Your task to perform on an android device: open app "Instagram" (install if not already installed), go to login, and select forgot password Image 0: 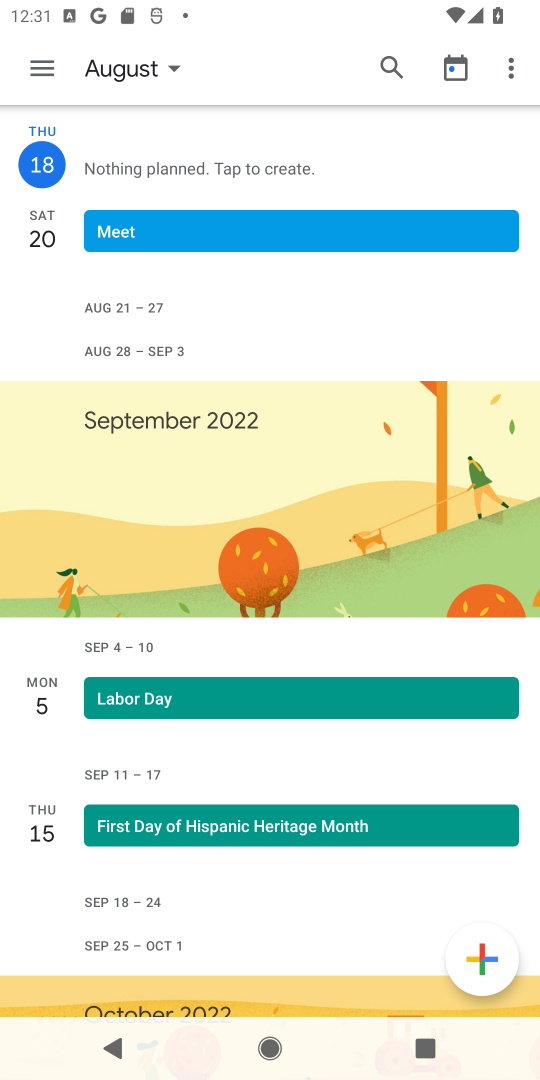
Step 0: press home button
Your task to perform on an android device: open app "Instagram" (install if not already installed), go to login, and select forgot password Image 1: 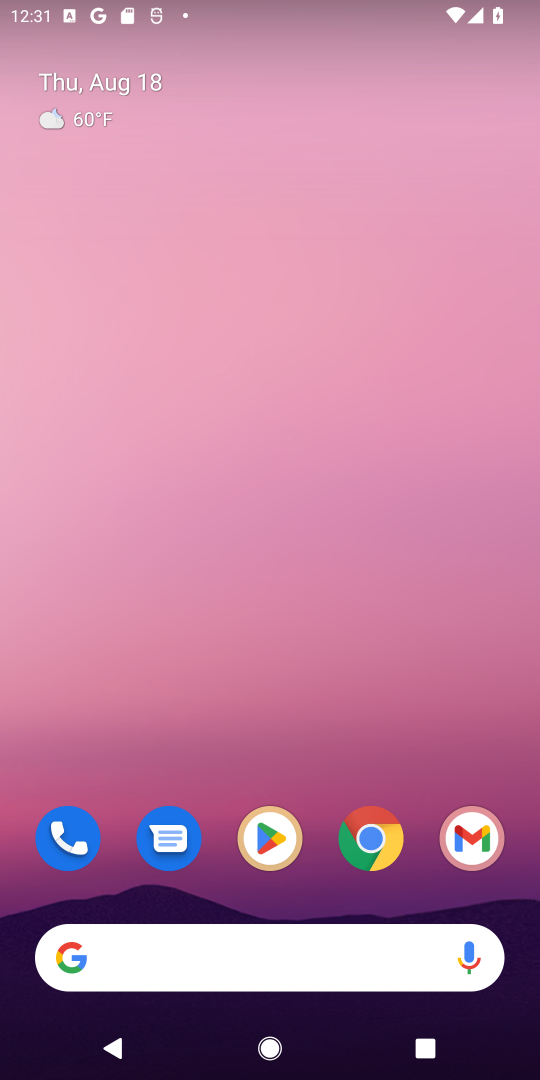
Step 1: click (271, 833)
Your task to perform on an android device: open app "Instagram" (install if not already installed), go to login, and select forgot password Image 2: 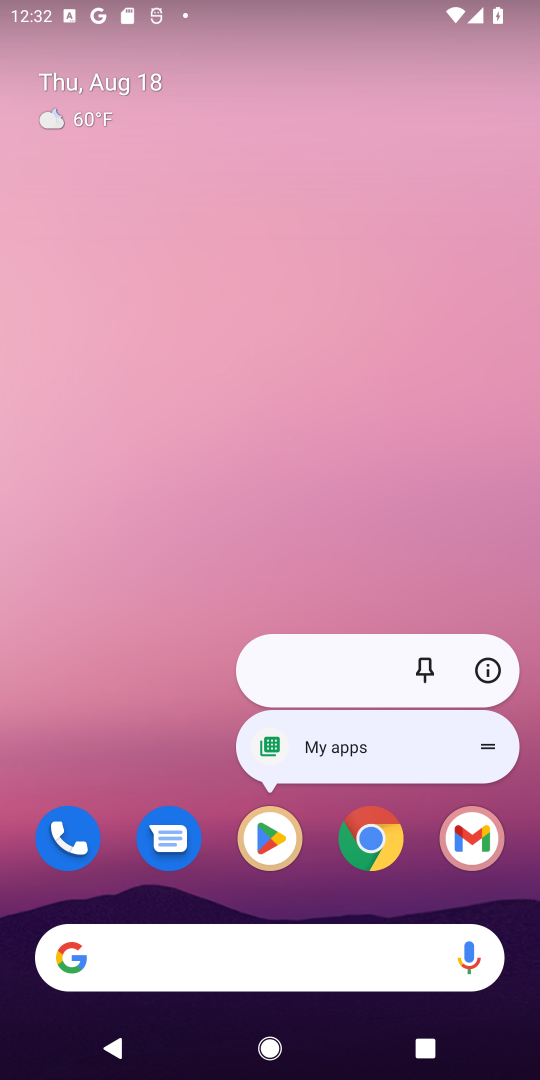
Step 2: click (272, 844)
Your task to perform on an android device: open app "Instagram" (install if not already installed), go to login, and select forgot password Image 3: 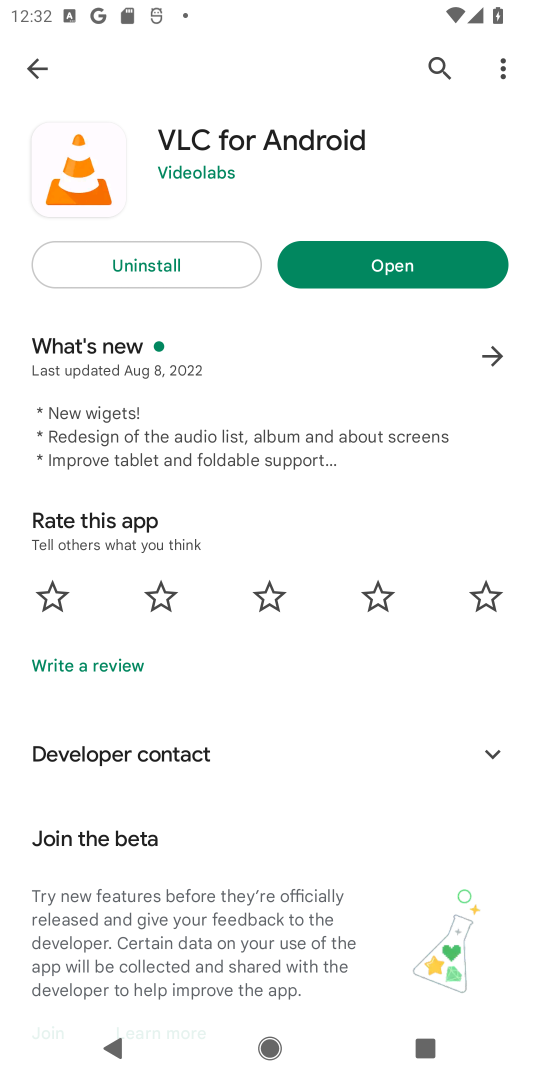
Step 3: click (434, 70)
Your task to perform on an android device: open app "Instagram" (install if not already installed), go to login, and select forgot password Image 4: 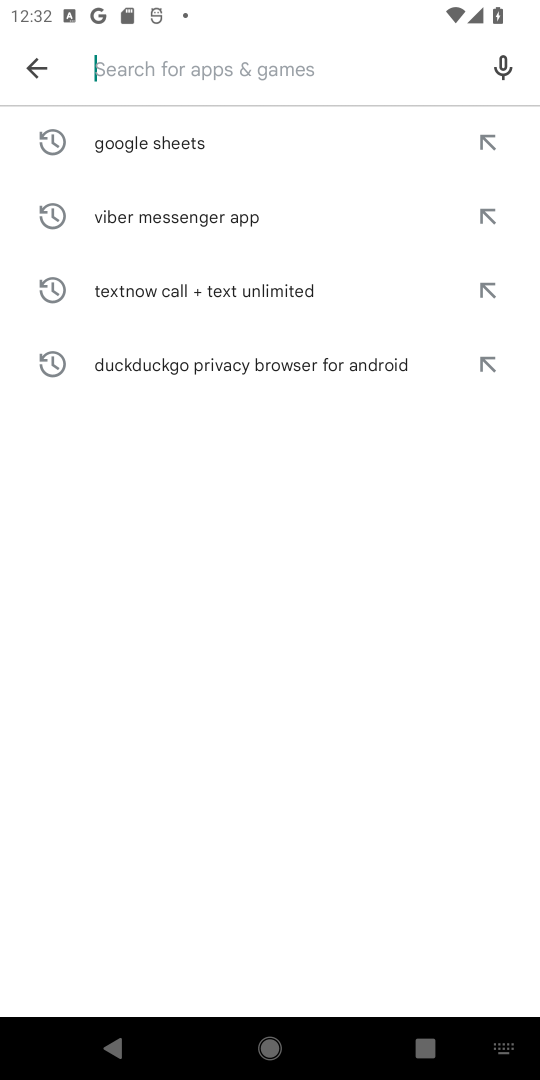
Step 4: type "Instagram"
Your task to perform on an android device: open app "Instagram" (install if not already installed), go to login, and select forgot password Image 5: 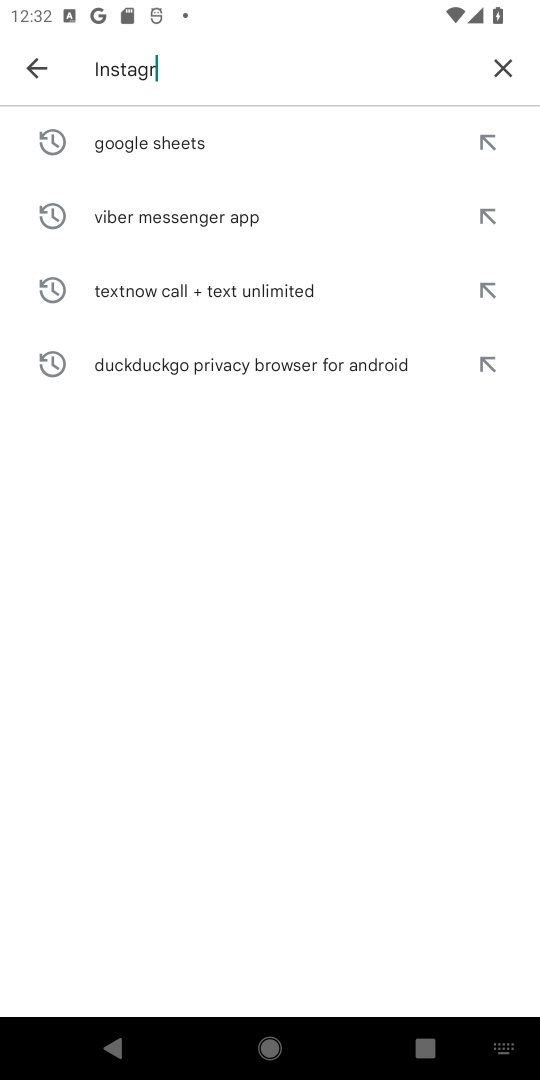
Step 5: type ""
Your task to perform on an android device: open app "Instagram" (install if not already installed), go to login, and select forgot password Image 6: 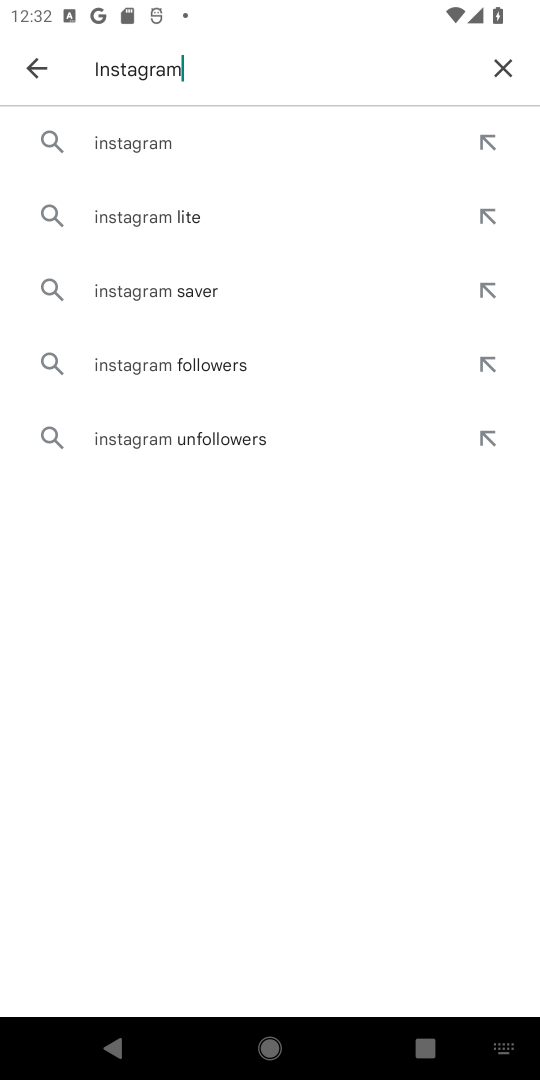
Step 6: click (211, 142)
Your task to perform on an android device: open app "Instagram" (install if not already installed), go to login, and select forgot password Image 7: 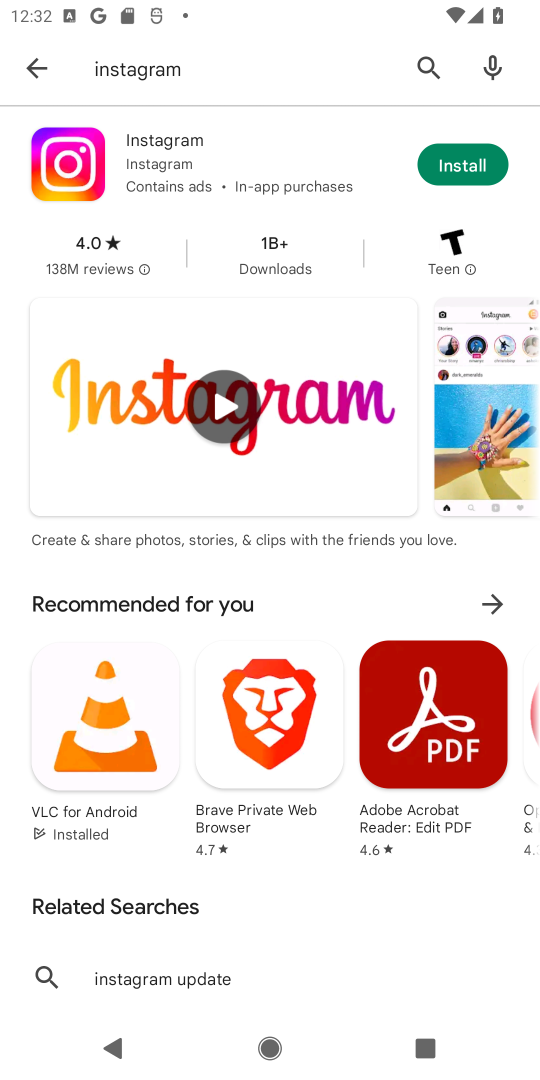
Step 7: click (469, 167)
Your task to perform on an android device: open app "Instagram" (install if not already installed), go to login, and select forgot password Image 8: 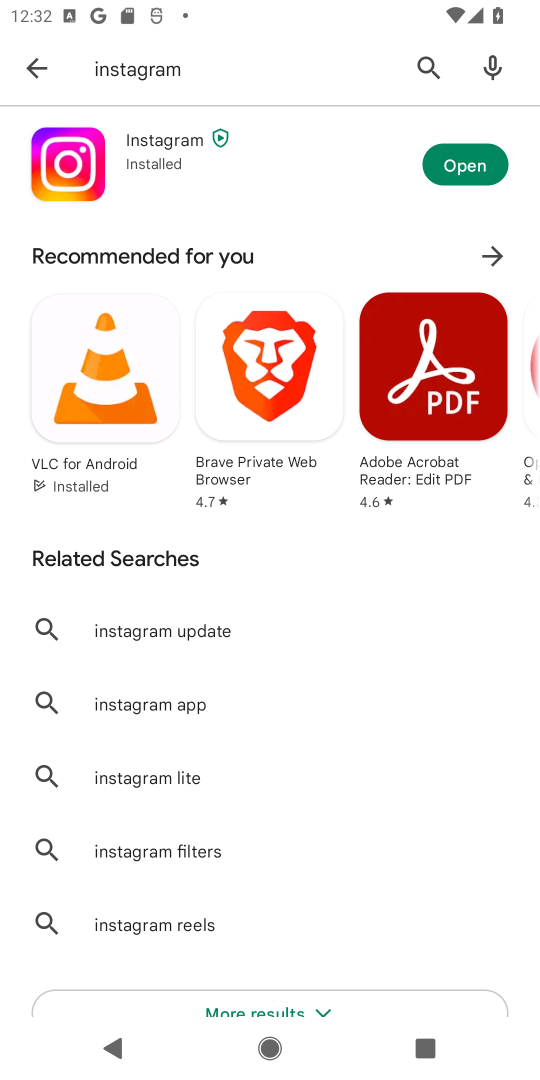
Step 8: click (471, 167)
Your task to perform on an android device: open app "Instagram" (install if not already installed), go to login, and select forgot password Image 9: 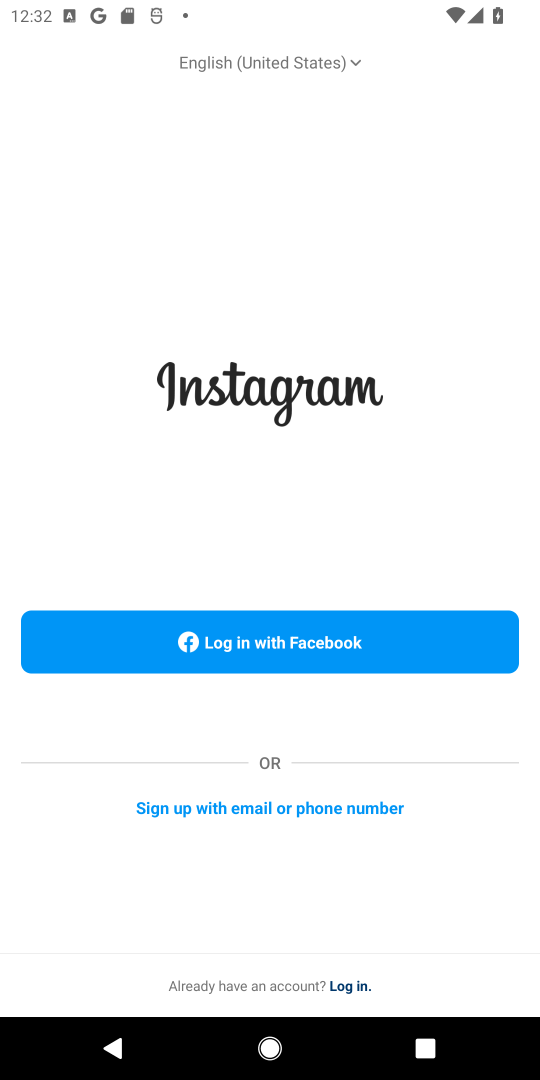
Step 9: task complete